Your task to perform on an android device: Go to battery settings Image 0: 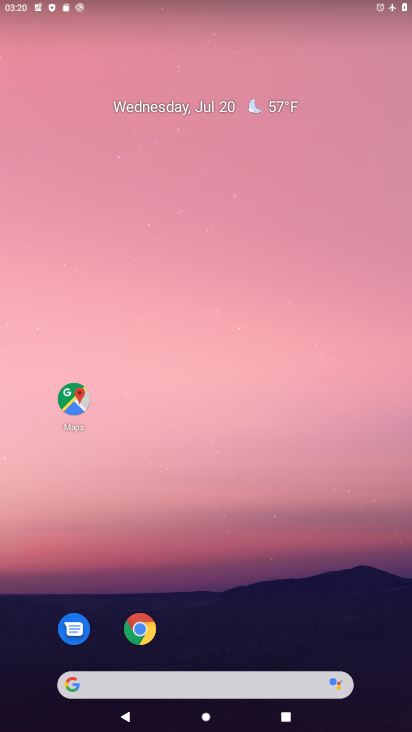
Step 0: drag from (393, 648) to (360, 86)
Your task to perform on an android device: Go to battery settings Image 1: 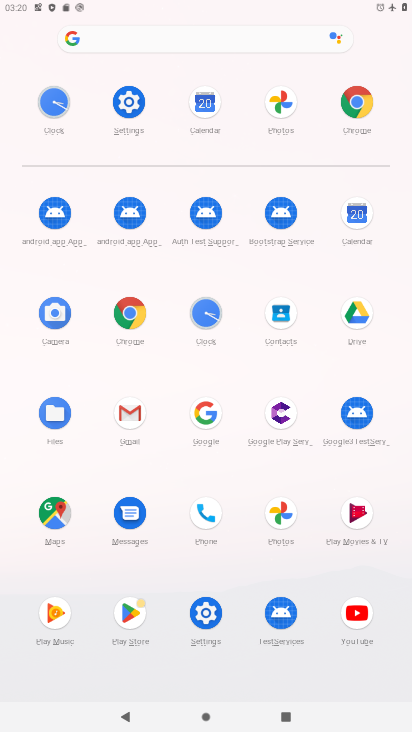
Step 1: click (205, 612)
Your task to perform on an android device: Go to battery settings Image 2: 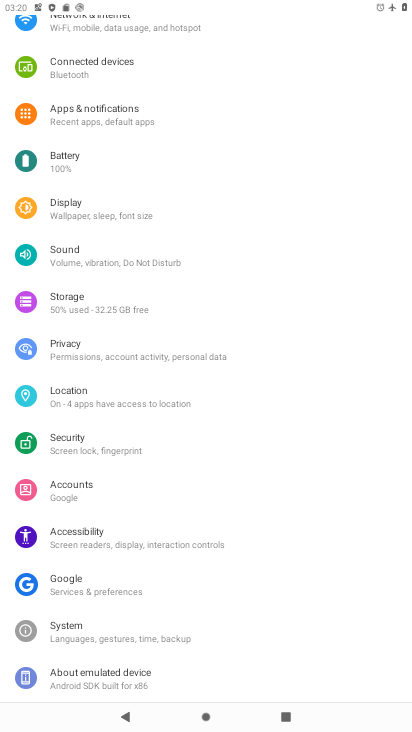
Step 2: click (62, 151)
Your task to perform on an android device: Go to battery settings Image 3: 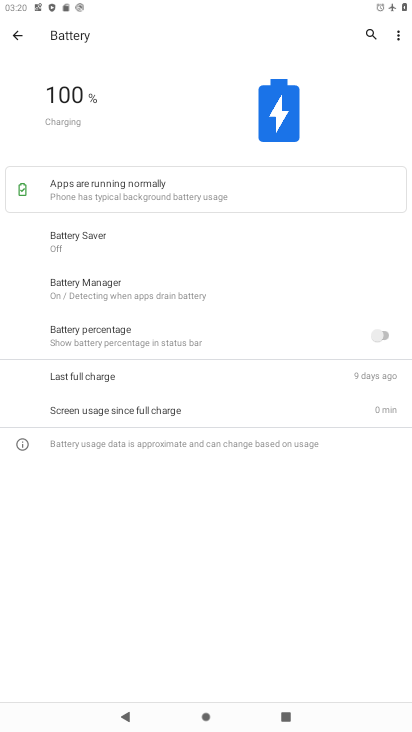
Step 3: task complete